Your task to perform on an android device: clear history in the chrome app Image 0: 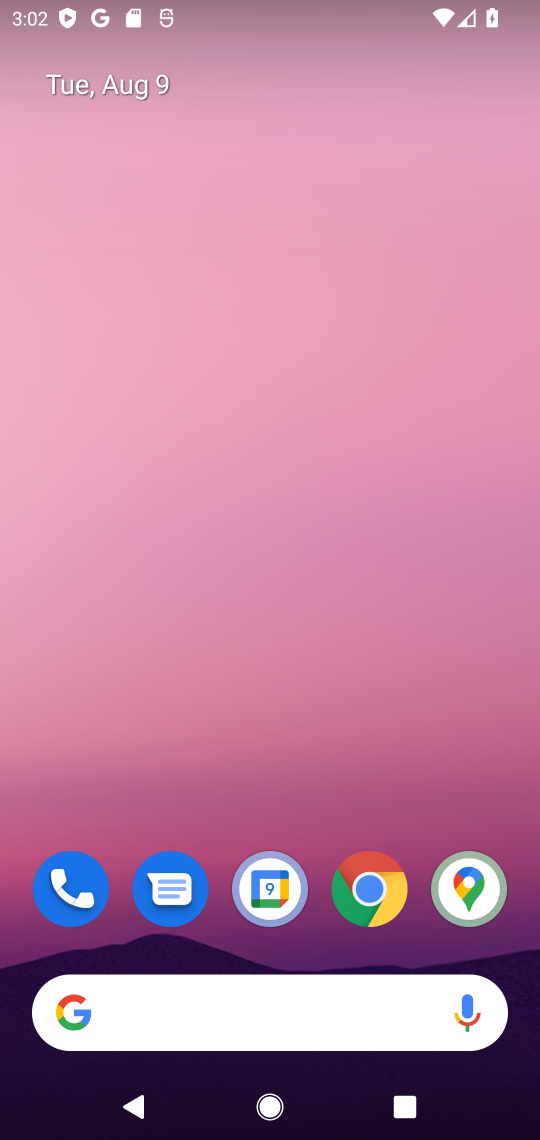
Step 0: click (380, 887)
Your task to perform on an android device: clear history in the chrome app Image 1: 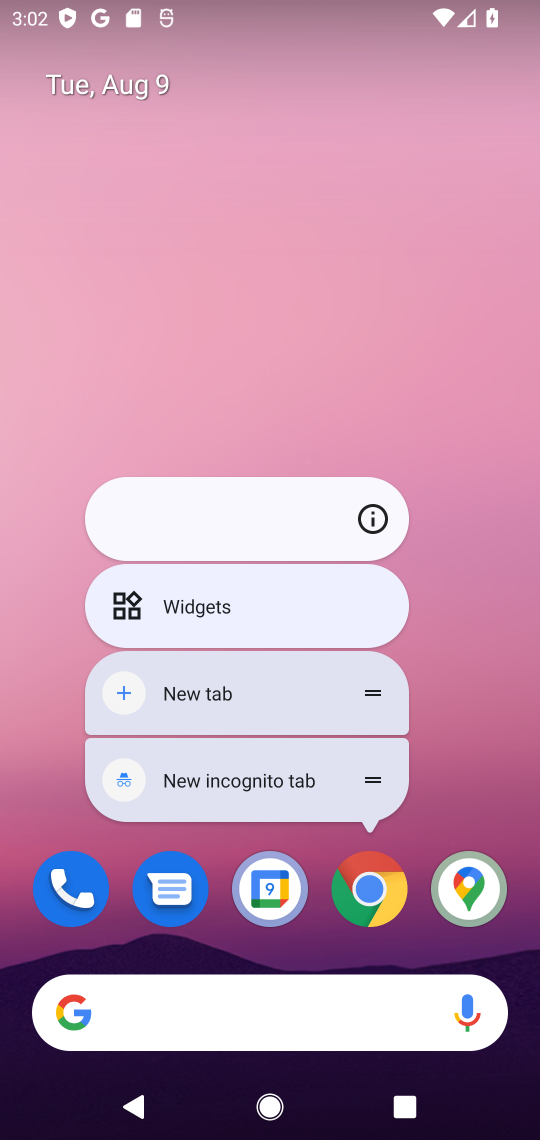
Step 1: click (380, 889)
Your task to perform on an android device: clear history in the chrome app Image 2: 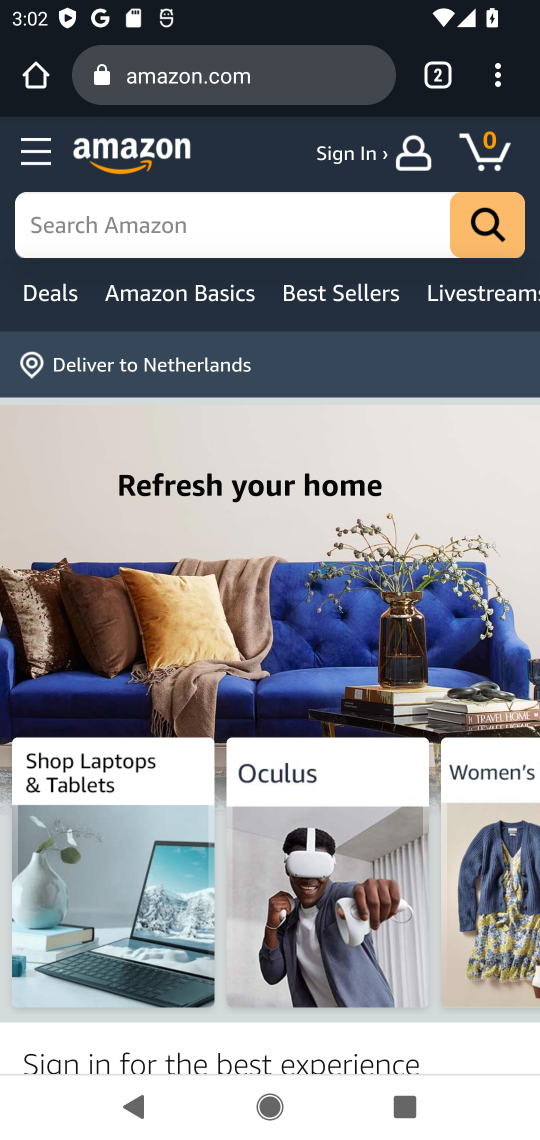
Step 2: press back button
Your task to perform on an android device: clear history in the chrome app Image 3: 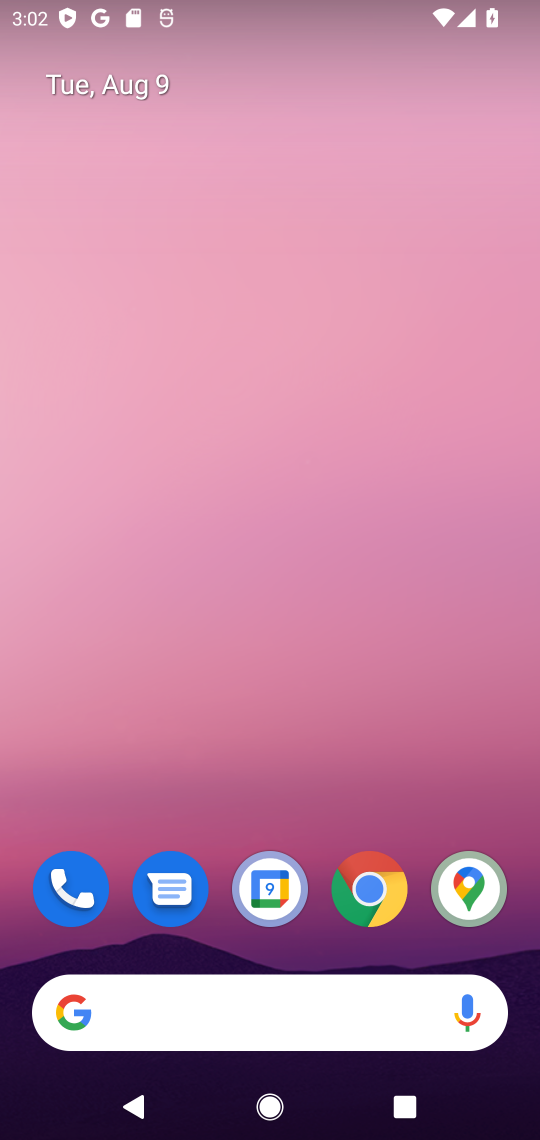
Step 3: click (368, 888)
Your task to perform on an android device: clear history in the chrome app Image 4: 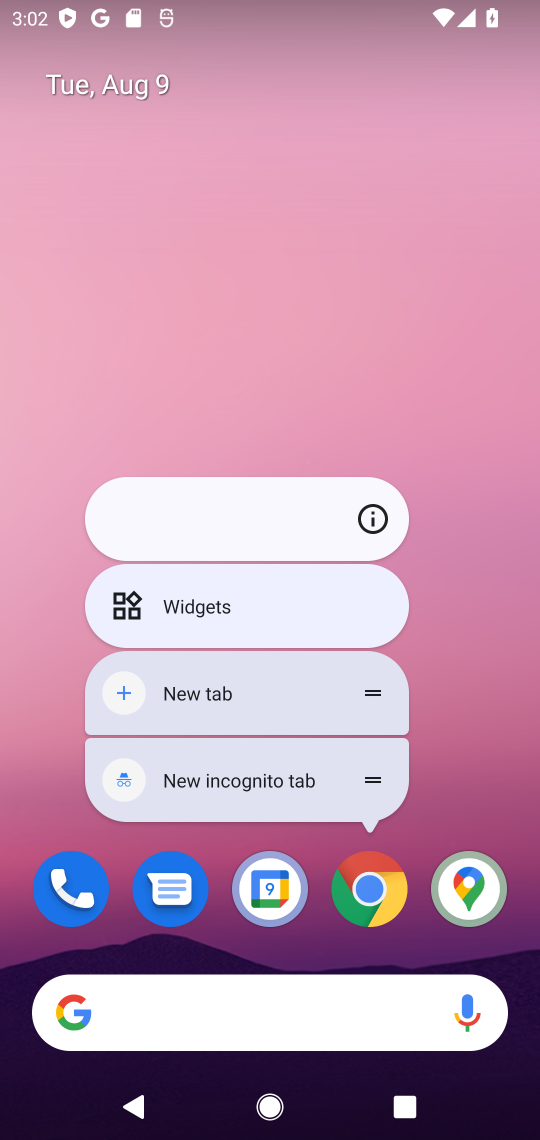
Step 4: click (368, 888)
Your task to perform on an android device: clear history in the chrome app Image 5: 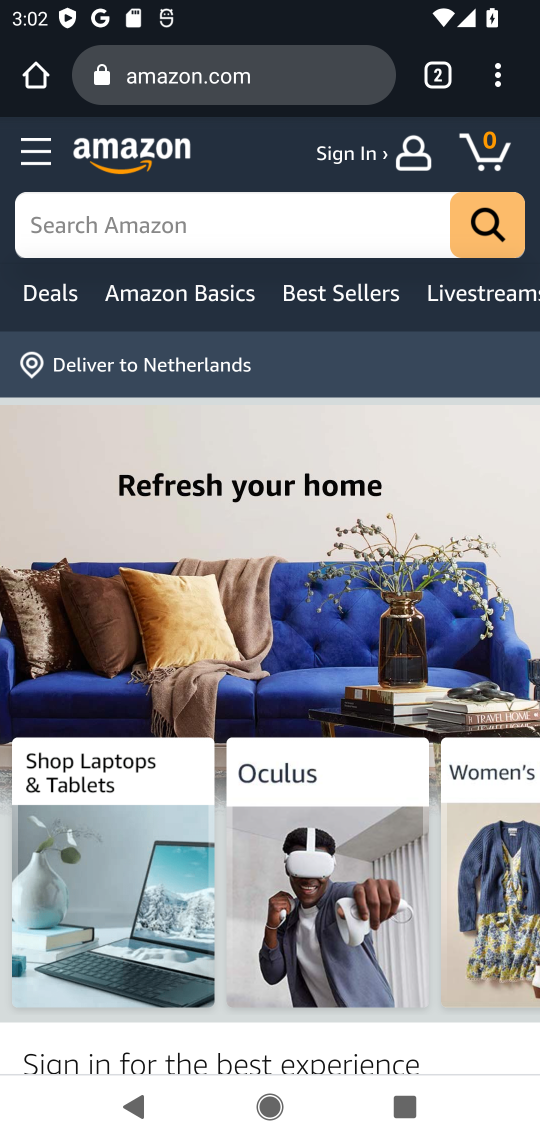
Step 5: click (494, 75)
Your task to perform on an android device: clear history in the chrome app Image 6: 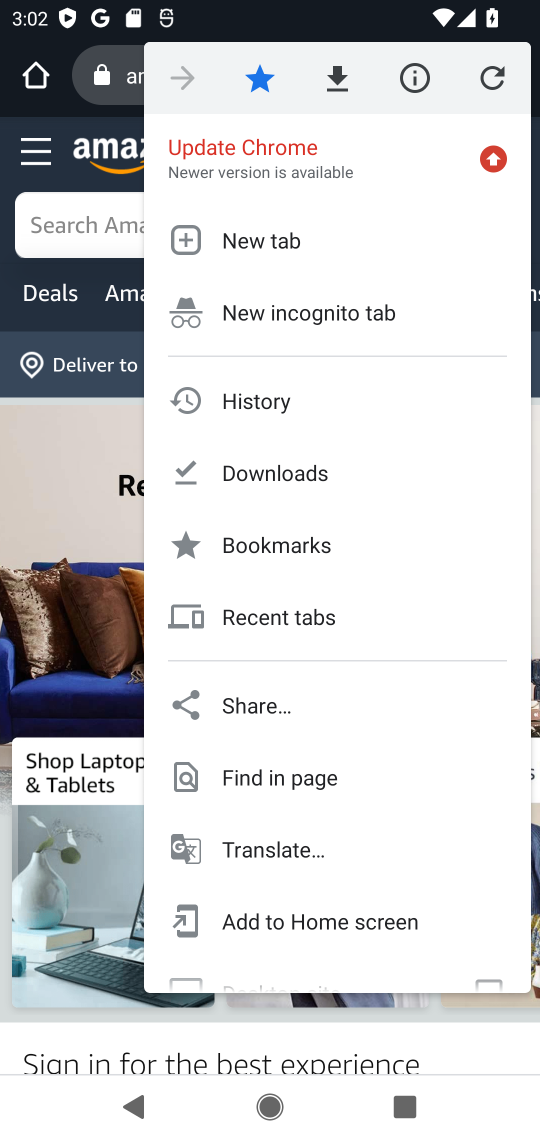
Step 6: click (276, 391)
Your task to perform on an android device: clear history in the chrome app Image 7: 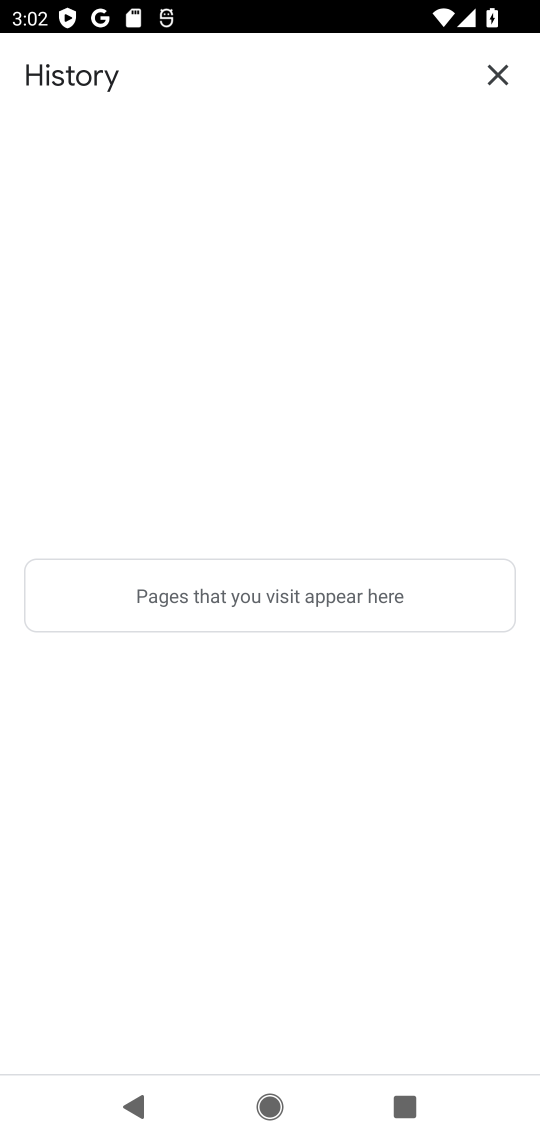
Step 7: task complete